Your task to perform on an android device: Open ESPN.com Image 0: 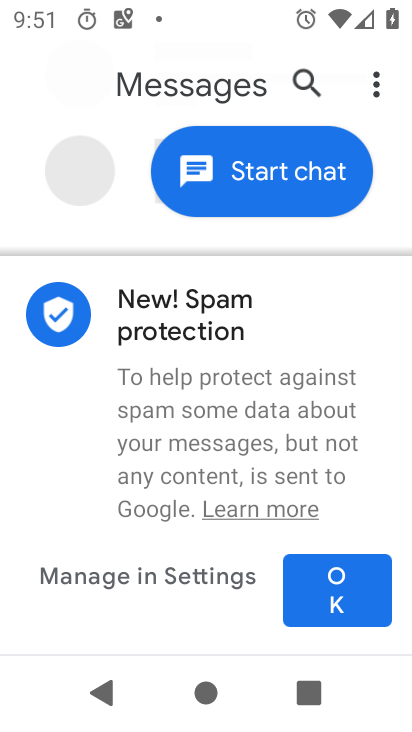
Step 0: press back button
Your task to perform on an android device: Open ESPN.com Image 1: 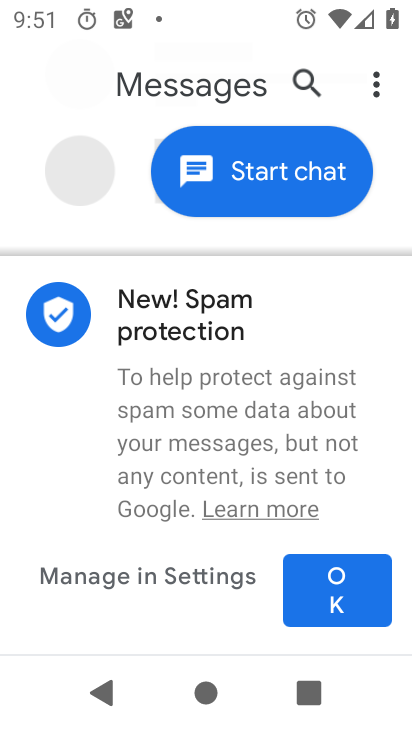
Step 1: press home button
Your task to perform on an android device: Open ESPN.com Image 2: 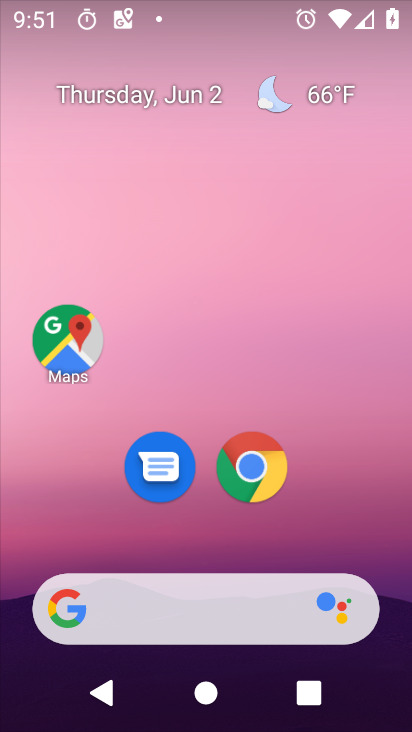
Step 2: click (254, 459)
Your task to perform on an android device: Open ESPN.com Image 3: 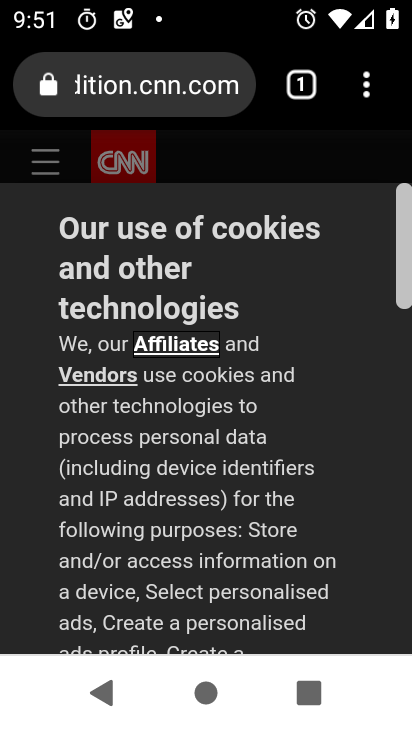
Step 3: click (291, 95)
Your task to perform on an android device: Open ESPN.com Image 4: 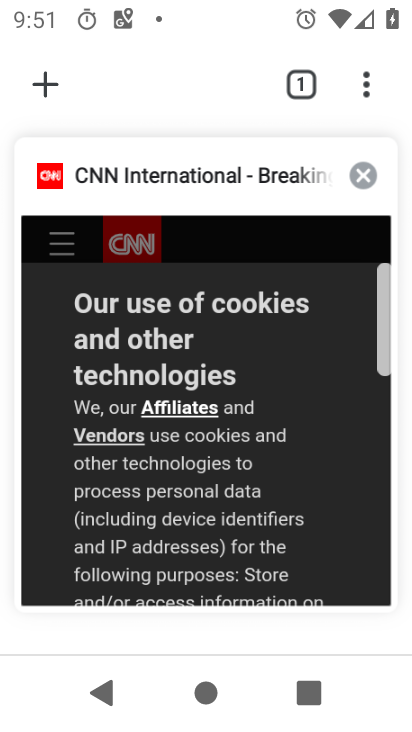
Step 4: click (364, 188)
Your task to perform on an android device: Open ESPN.com Image 5: 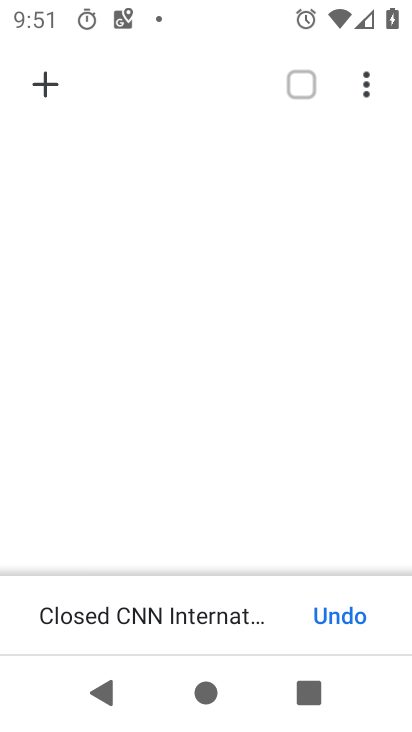
Step 5: click (42, 86)
Your task to perform on an android device: Open ESPN.com Image 6: 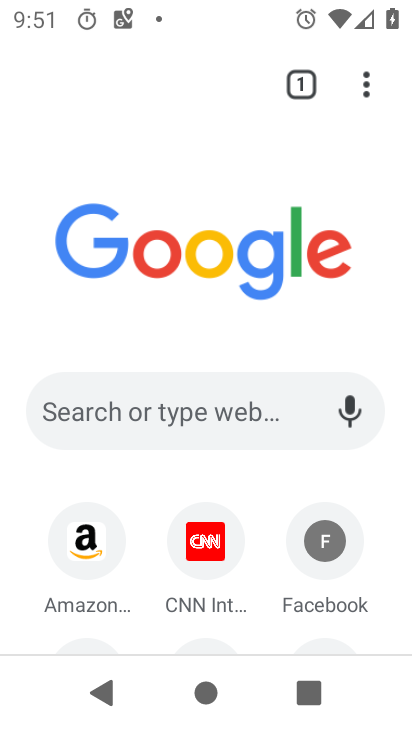
Step 6: drag from (8, 384) to (133, 150)
Your task to perform on an android device: Open ESPN.com Image 7: 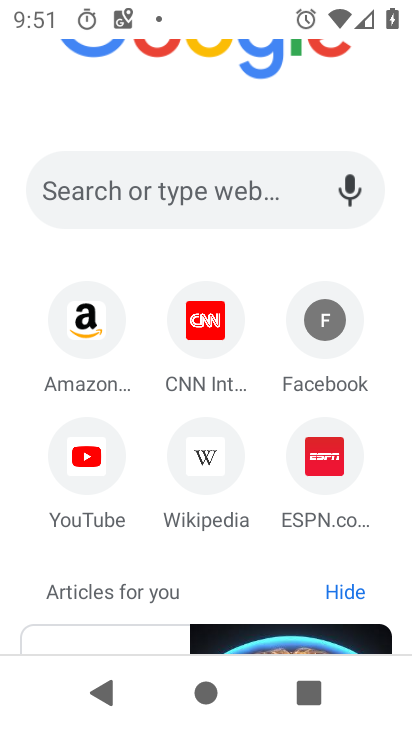
Step 7: click (325, 448)
Your task to perform on an android device: Open ESPN.com Image 8: 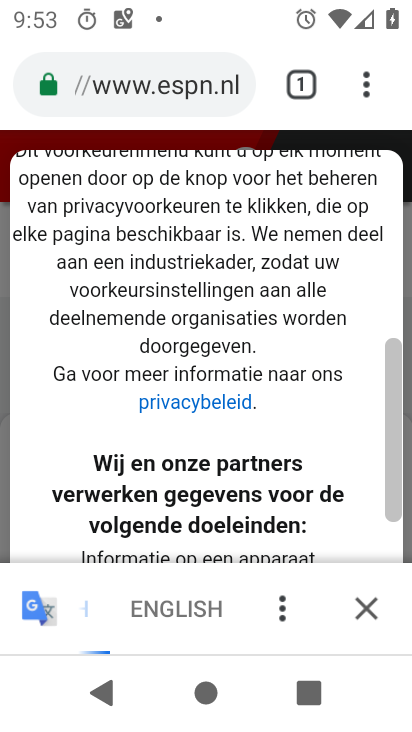
Step 8: task complete